Your task to perform on an android device: Search for apple airpods on newegg.com, select the first entry, add it to the cart, then select checkout. Image 0: 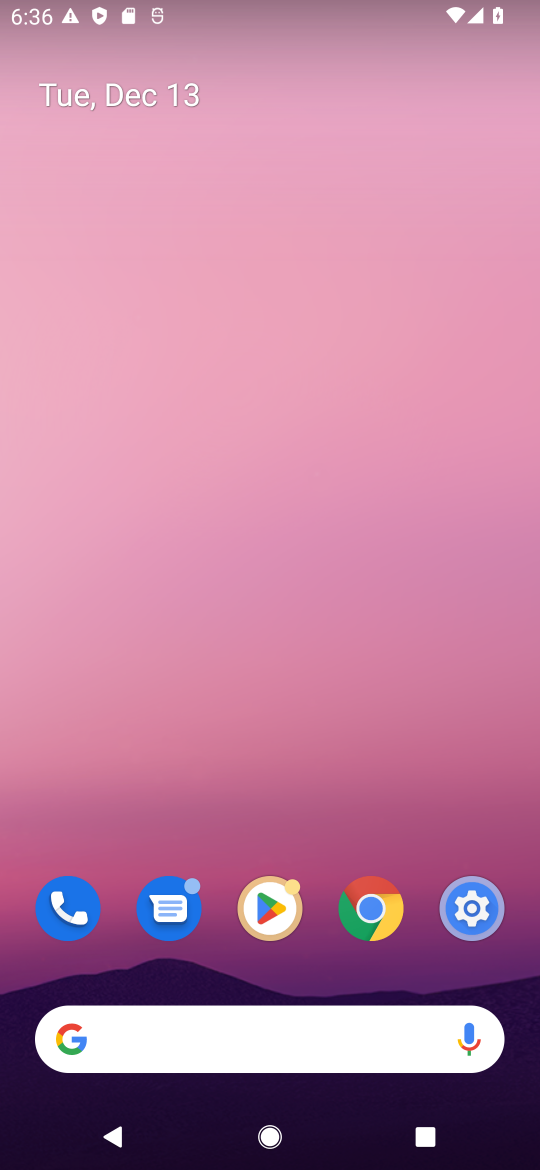
Step 0: press home button
Your task to perform on an android device: Search for apple airpods on newegg.com, select the first entry, add it to the cart, then select checkout. Image 1: 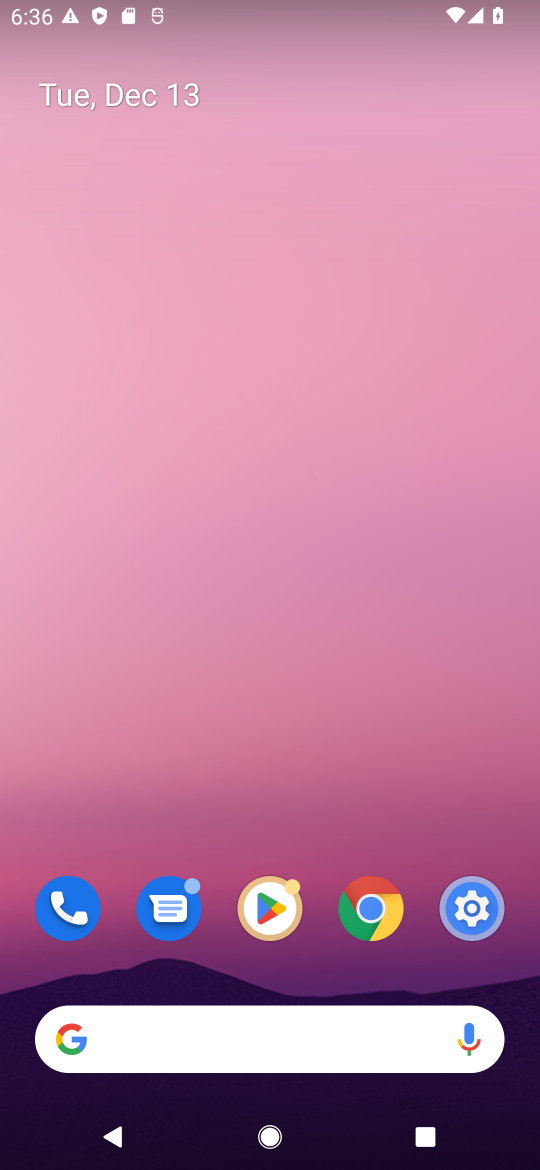
Step 1: click (103, 1034)
Your task to perform on an android device: Search for apple airpods on newegg.com, select the first entry, add it to the cart, then select checkout. Image 2: 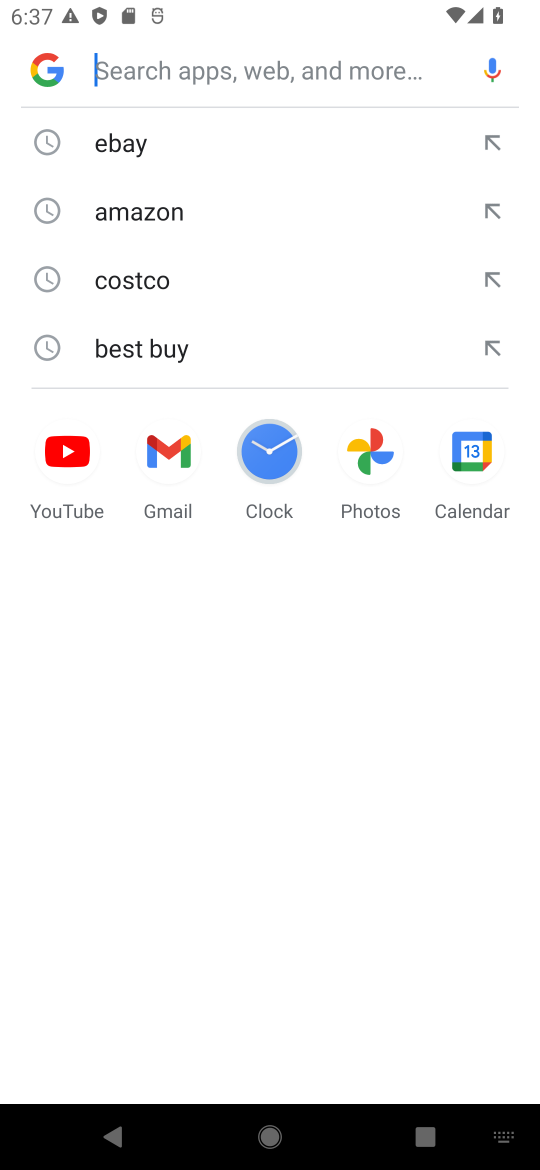
Step 2: press enter
Your task to perform on an android device: Search for apple airpods on newegg.com, select the first entry, add it to the cart, then select checkout. Image 3: 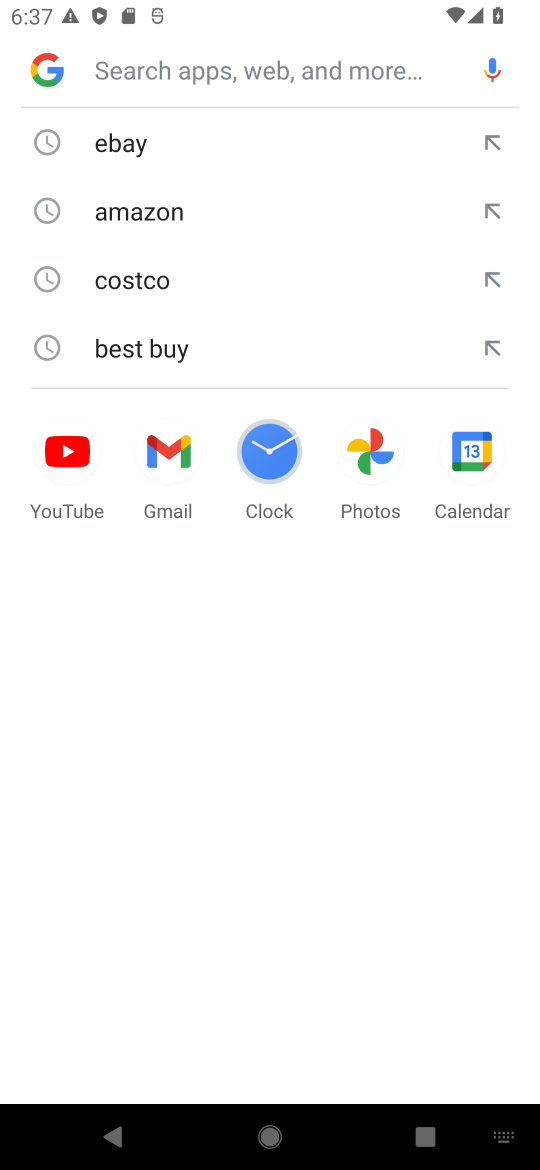
Step 3: type "newegg.com"
Your task to perform on an android device: Search for apple airpods on newegg.com, select the first entry, add it to the cart, then select checkout. Image 4: 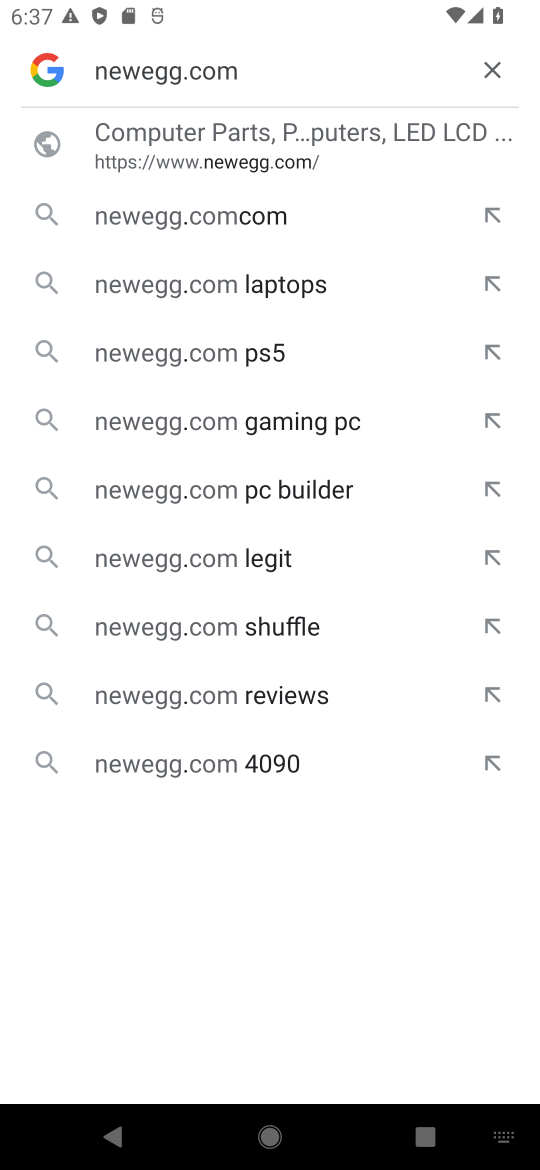
Step 4: press enter
Your task to perform on an android device: Search for apple airpods on newegg.com, select the first entry, add it to the cart, then select checkout. Image 5: 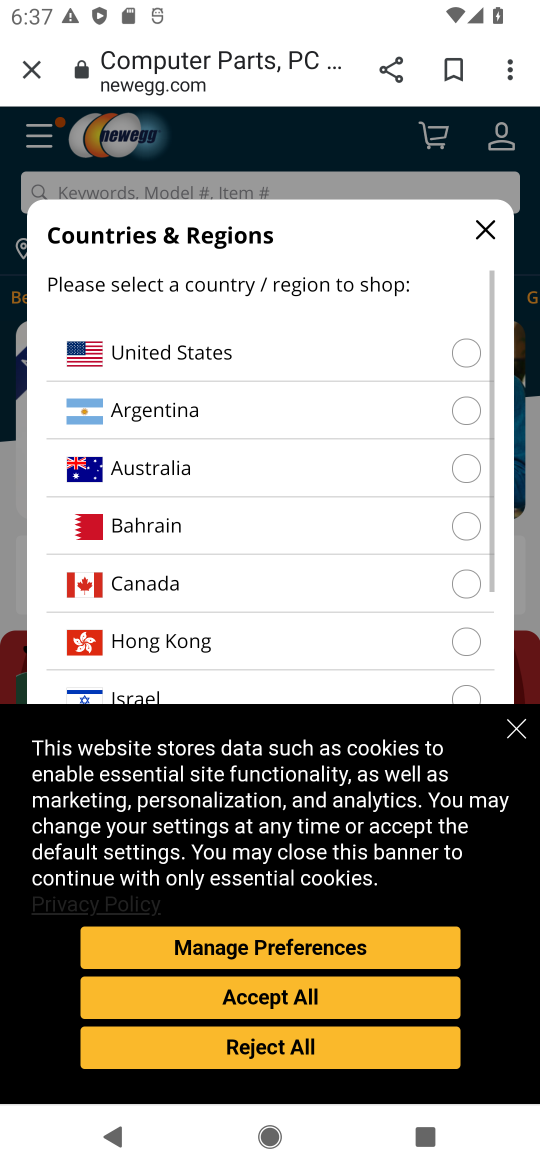
Step 5: click (516, 734)
Your task to perform on an android device: Search for apple airpods on newegg.com, select the first entry, add it to the cart, then select checkout. Image 6: 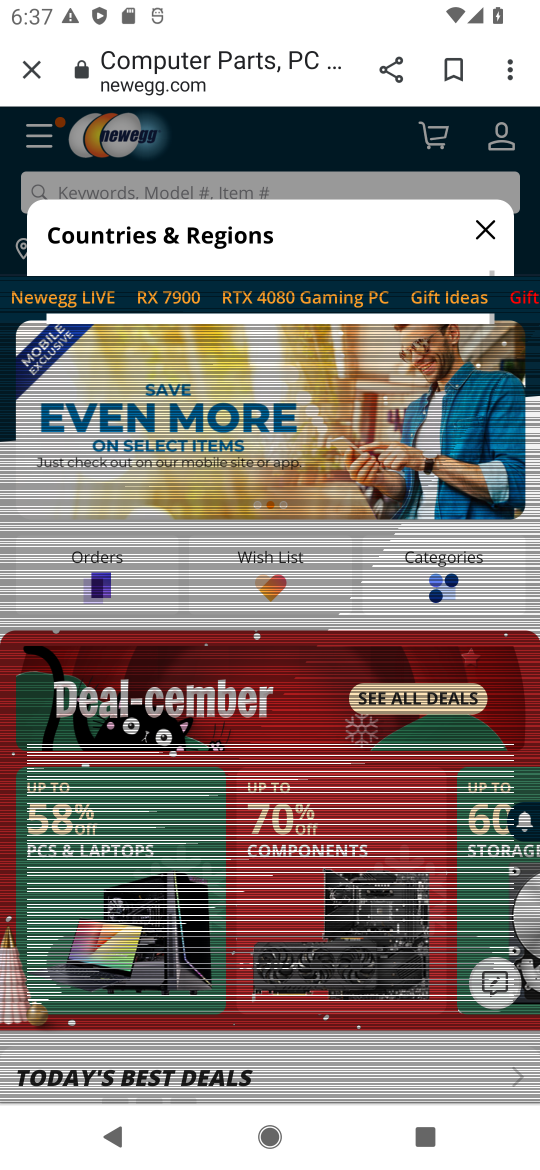
Step 6: click (478, 223)
Your task to perform on an android device: Search for apple airpods on newegg.com, select the first entry, add it to the cart, then select checkout. Image 7: 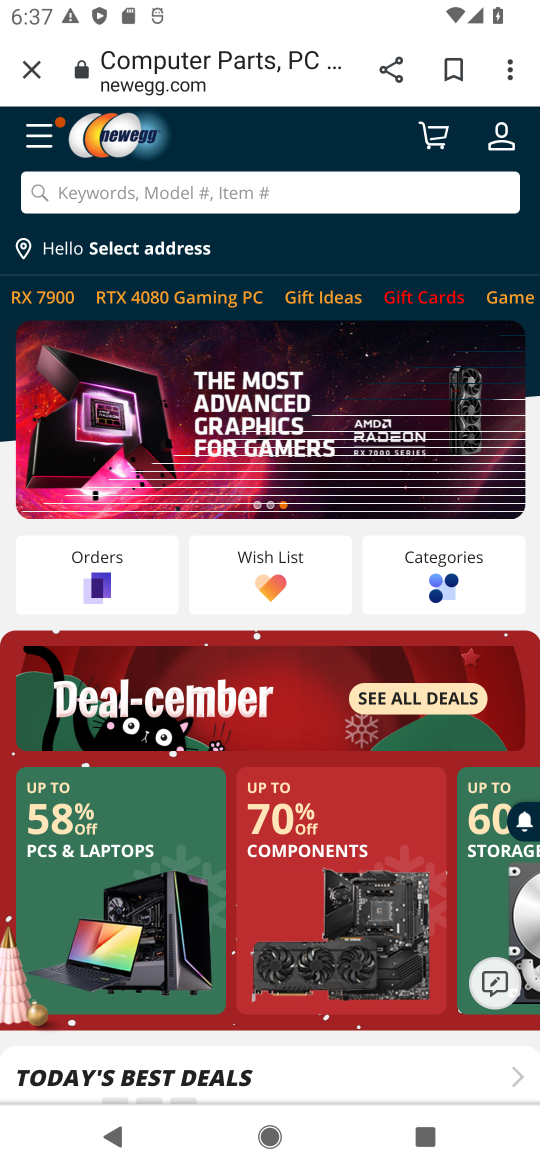
Step 7: click (304, 187)
Your task to perform on an android device: Search for apple airpods on newegg.com, select the first entry, add it to the cart, then select checkout. Image 8: 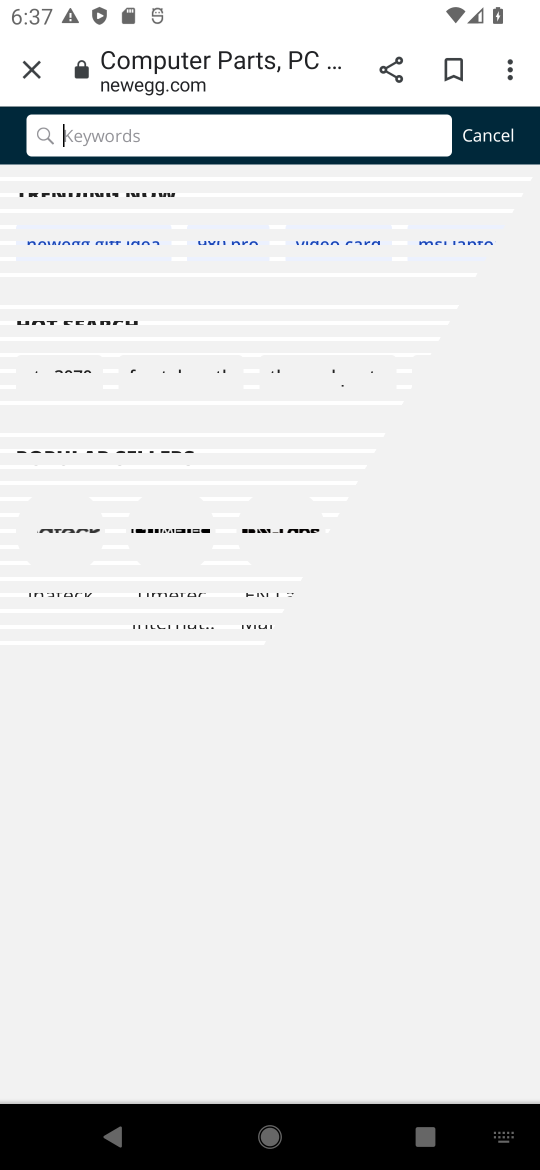
Step 8: type "apple airpods"
Your task to perform on an android device: Search for apple airpods on newegg.com, select the first entry, add it to the cart, then select checkout. Image 9: 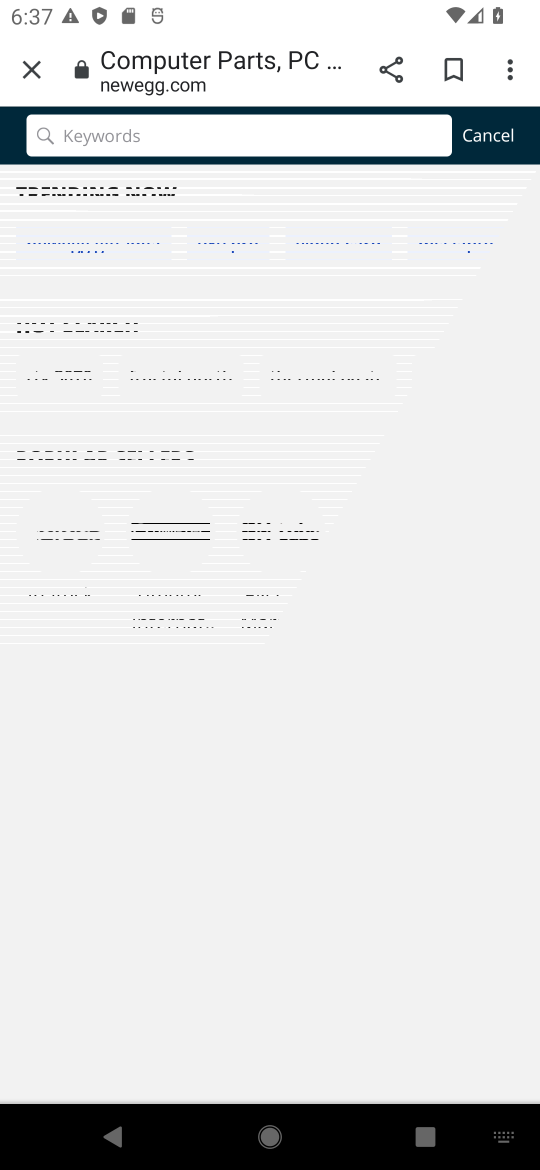
Step 9: press enter
Your task to perform on an android device: Search for apple airpods on newegg.com, select the first entry, add it to the cart, then select checkout. Image 10: 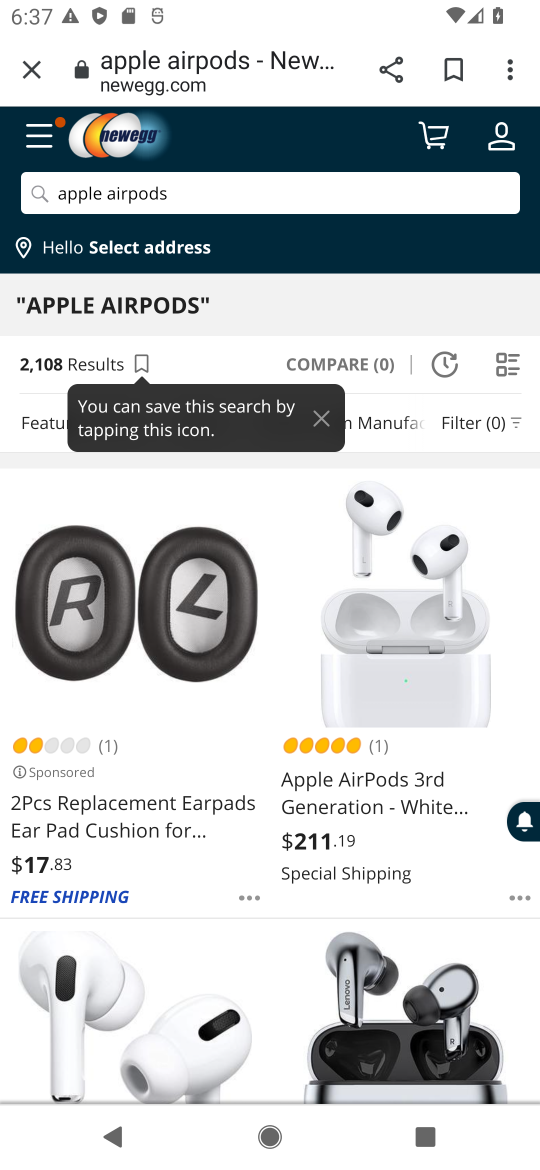
Step 10: drag from (220, 927) to (222, 477)
Your task to perform on an android device: Search for apple airpods on newegg.com, select the first entry, add it to the cart, then select checkout. Image 11: 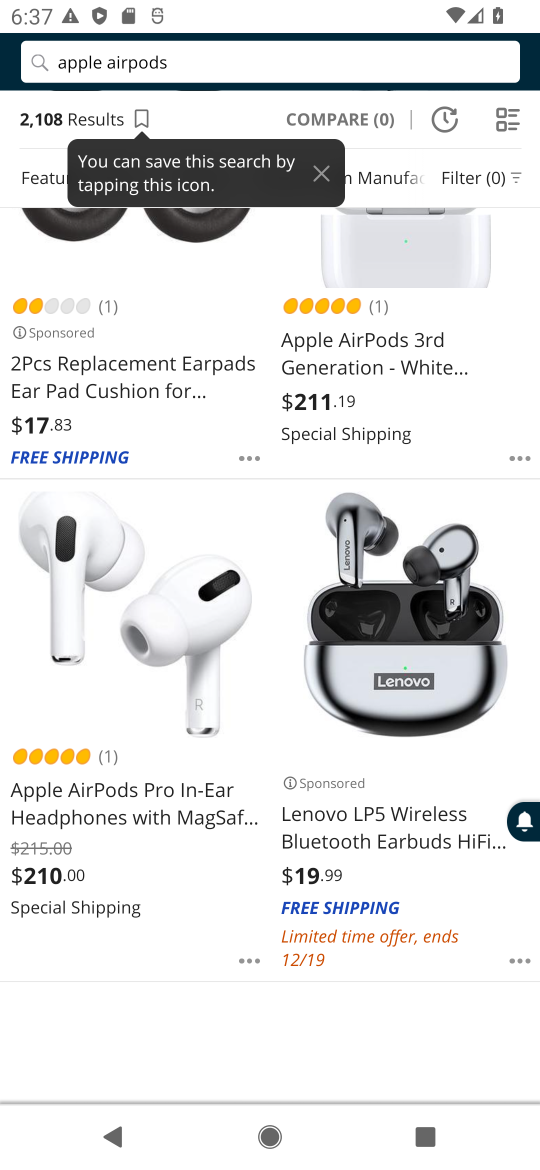
Step 11: drag from (384, 347) to (360, 938)
Your task to perform on an android device: Search for apple airpods on newegg.com, select the first entry, add it to the cart, then select checkout. Image 12: 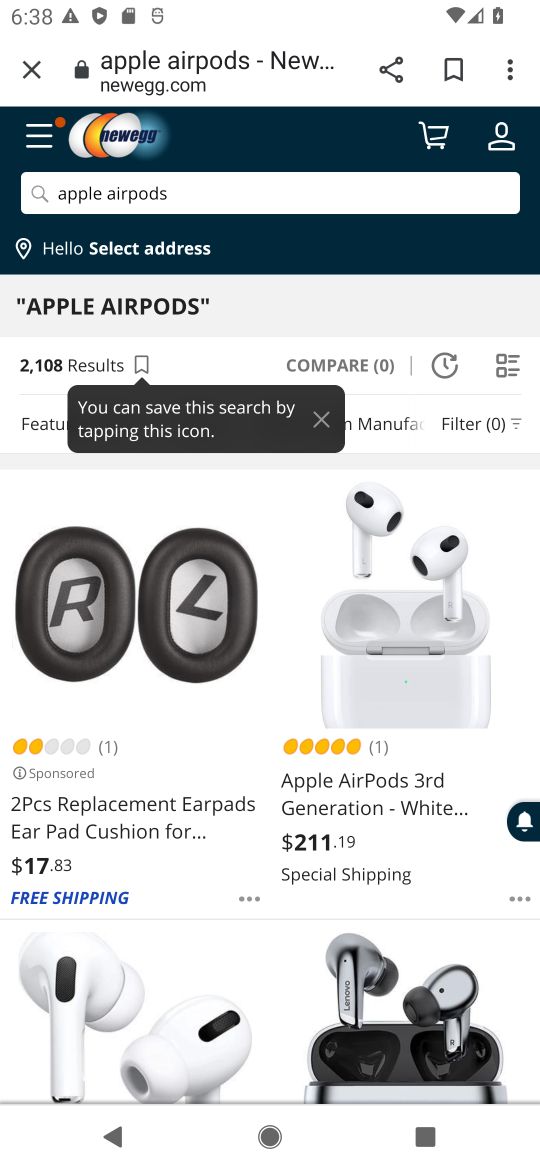
Step 12: click (404, 769)
Your task to perform on an android device: Search for apple airpods on newegg.com, select the first entry, add it to the cart, then select checkout. Image 13: 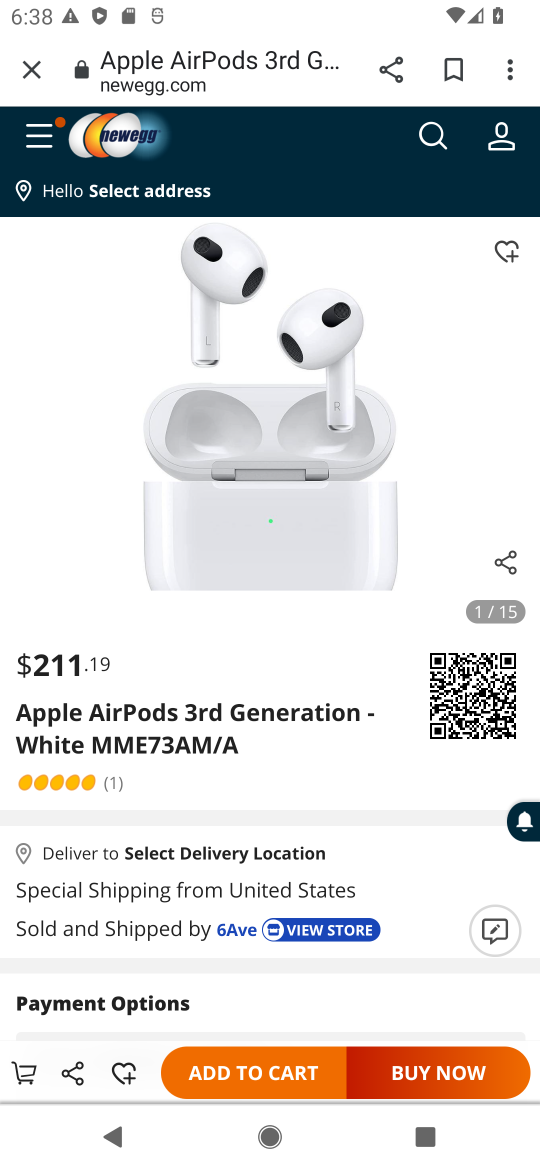
Step 13: click (251, 1083)
Your task to perform on an android device: Search for apple airpods on newegg.com, select the first entry, add it to the cart, then select checkout. Image 14: 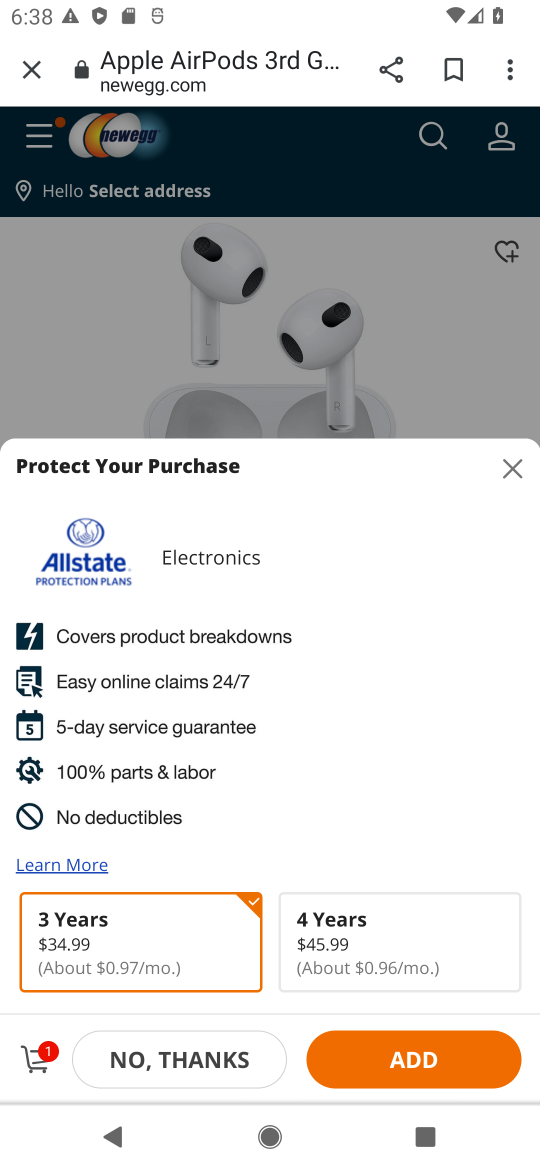
Step 14: click (148, 1057)
Your task to perform on an android device: Search for apple airpods on newegg.com, select the first entry, add it to the cart, then select checkout. Image 15: 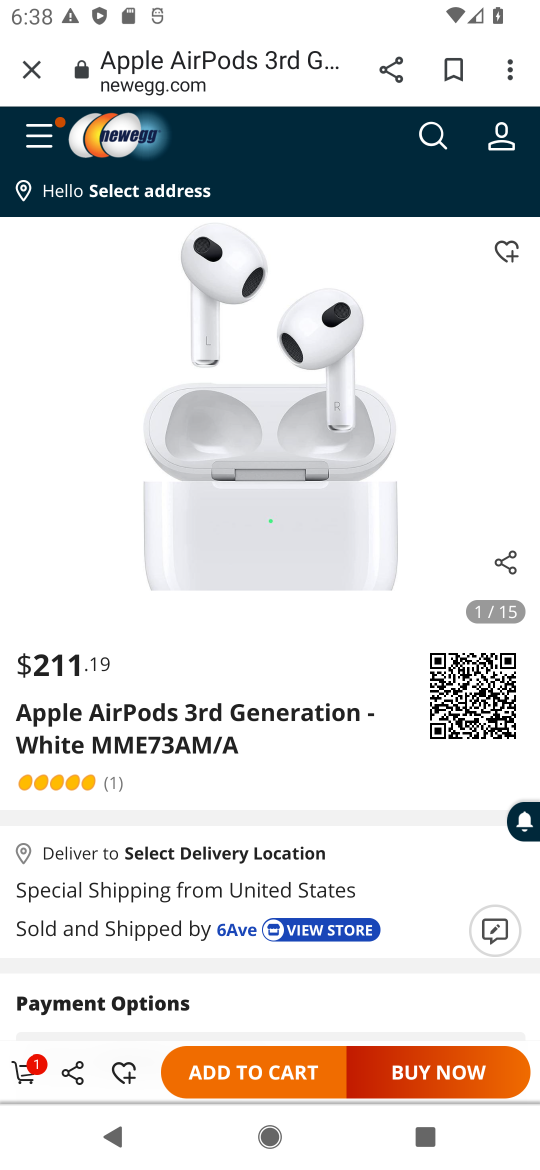
Step 15: click (24, 1077)
Your task to perform on an android device: Search for apple airpods on newegg.com, select the first entry, add it to the cart, then select checkout. Image 16: 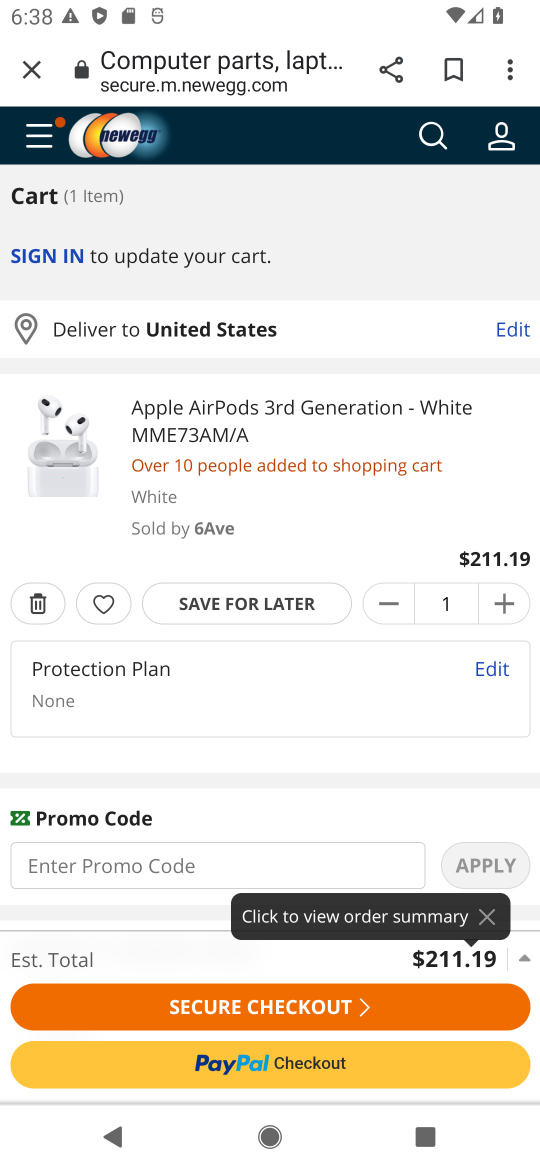
Step 16: click (225, 1002)
Your task to perform on an android device: Search for apple airpods on newegg.com, select the first entry, add it to the cart, then select checkout. Image 17: 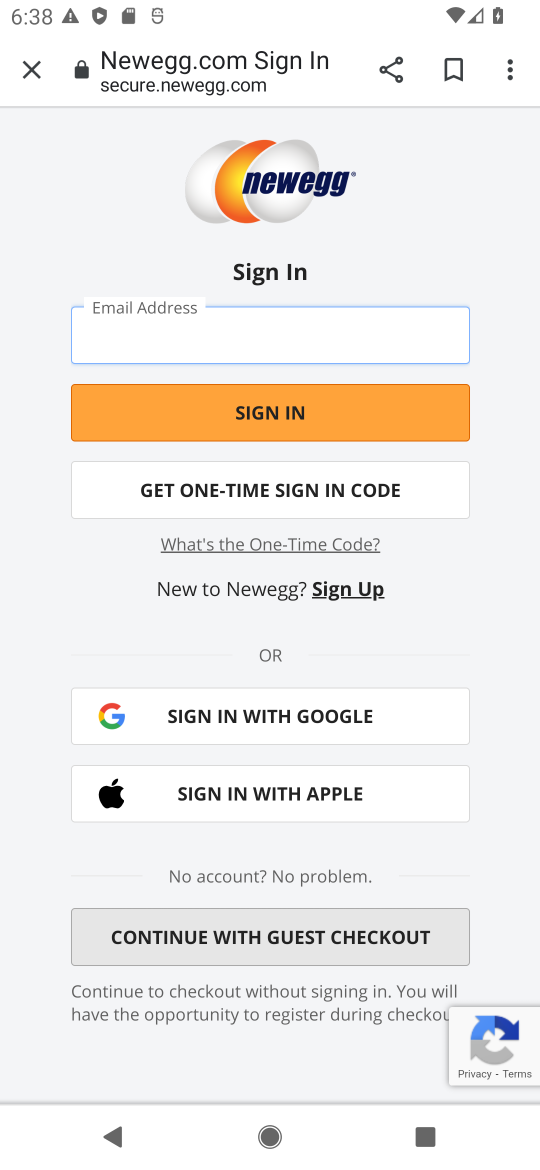
Step 17: task complete